Your task to perform on an android device: move a message to another label in the gmail app Image 0: 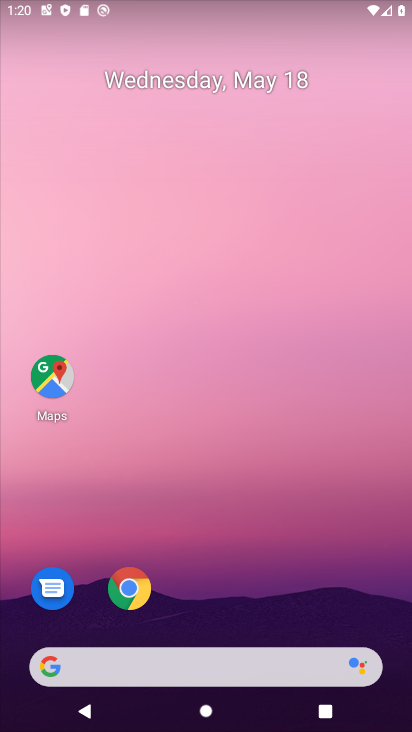
Step 0: drag from (295, 560) to (350, 88)
Your task to perform on an android device: move a message to another label in the gmail app Image 1: 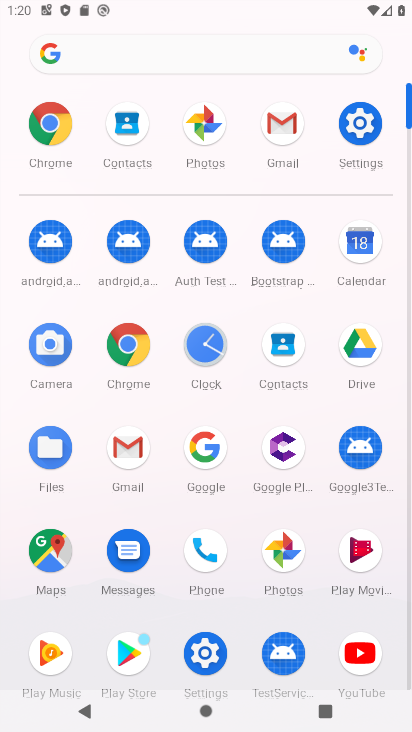
Step 1: click (133, 448)
Your task to perform on an android device: move a message to another label in the gmail app Image 2: 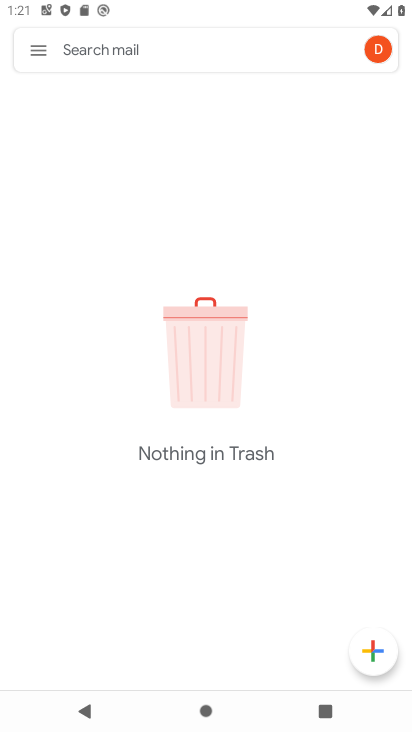
Step 2: task complete